Your task to perform on an android device: Show me recent news Image 0: 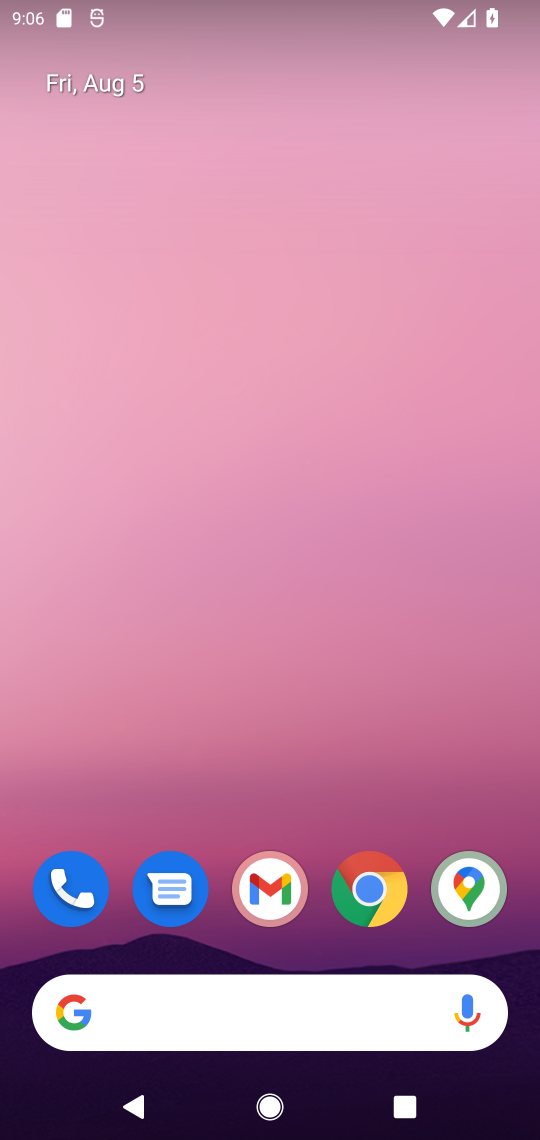
Step 0: drag from (297, 706) to (309, 25)
Your task to perform on an android device: Show me recent news Image 1: 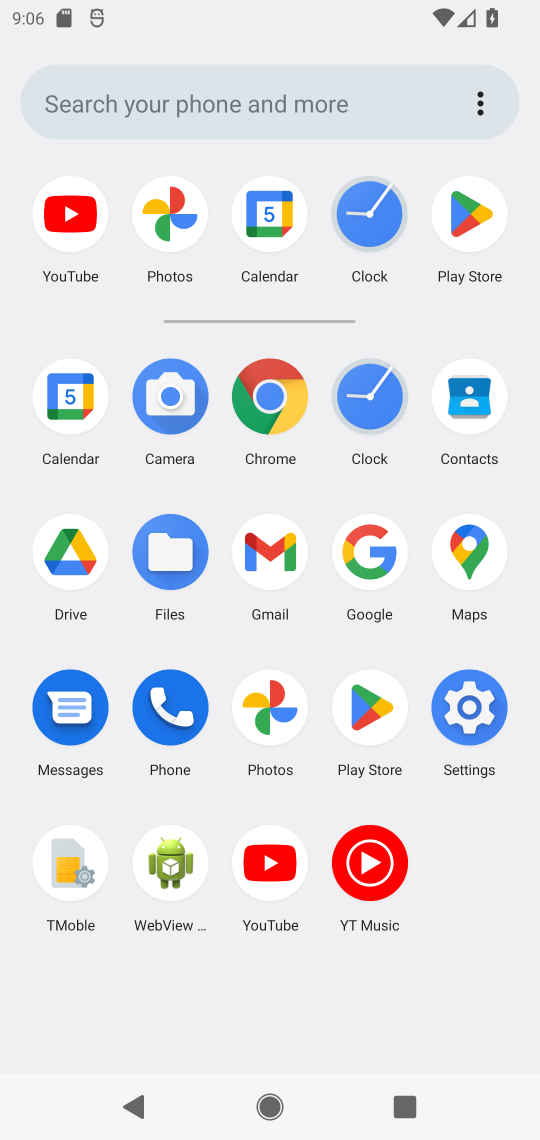
Step 1: click (288, 400)
Your task to perform on an android device: Show me recent news Image 2: 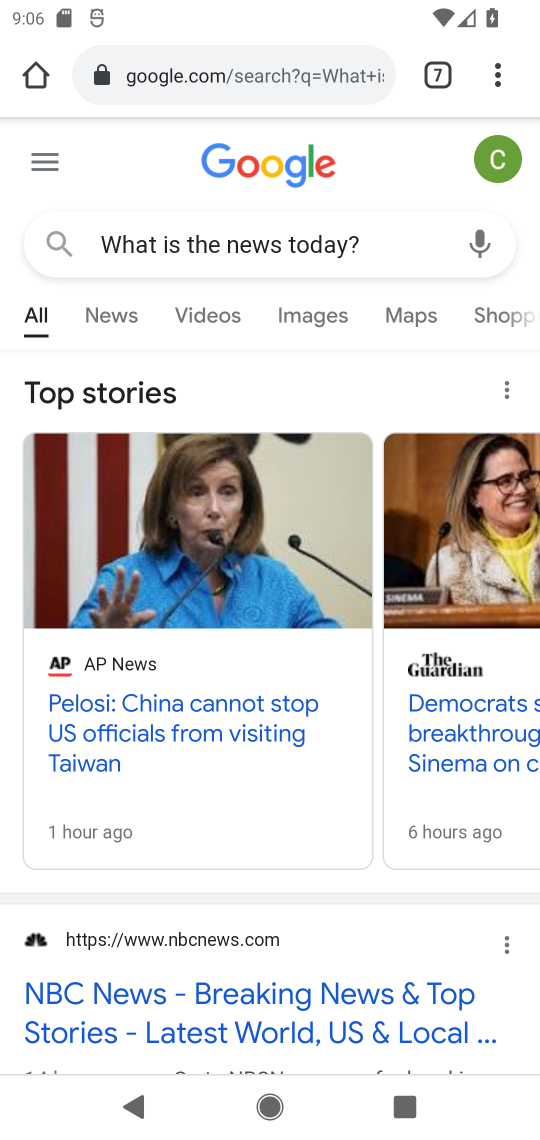
Step 2: click (484, 86)
Your task to perform on an android device: Show me recent news Image 3: 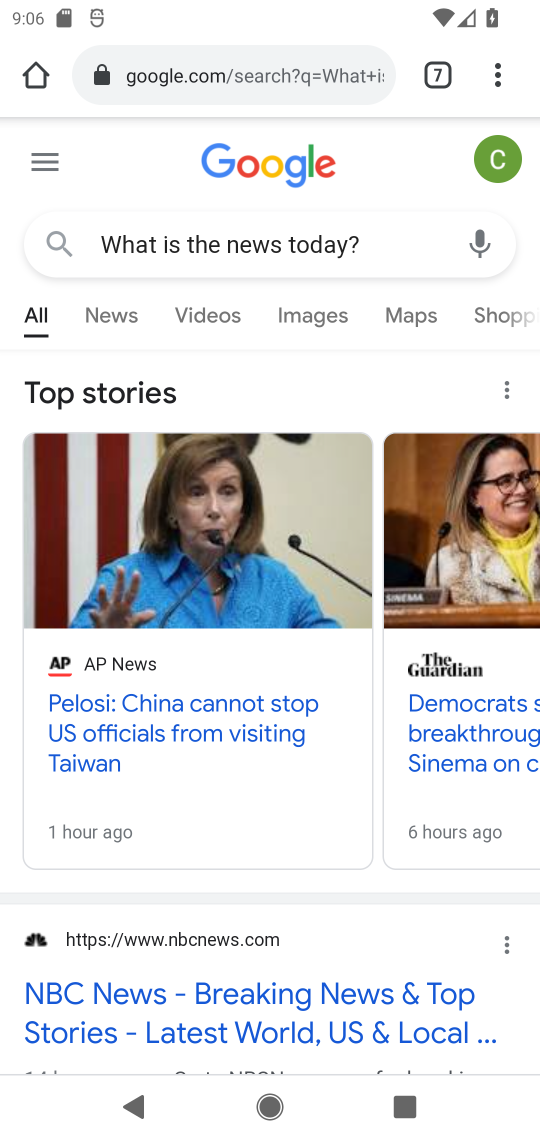
Step 3: click (496, 62)
Your task to perform on an android device: Show me recent news Image 4: 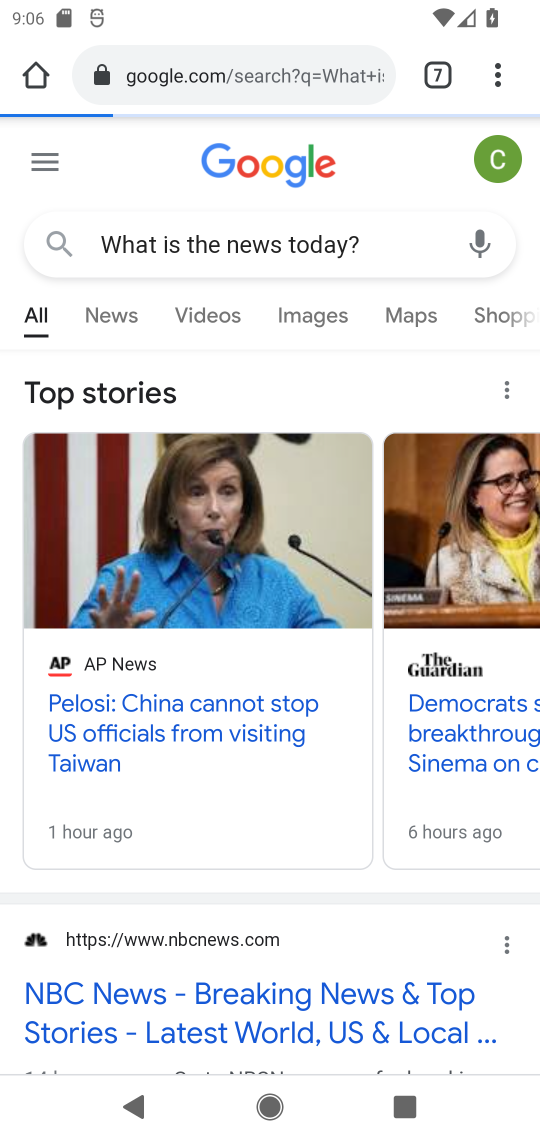
Step 4: click (493, 65)
Your task to perform on an android device: Show me recent news Image 5: 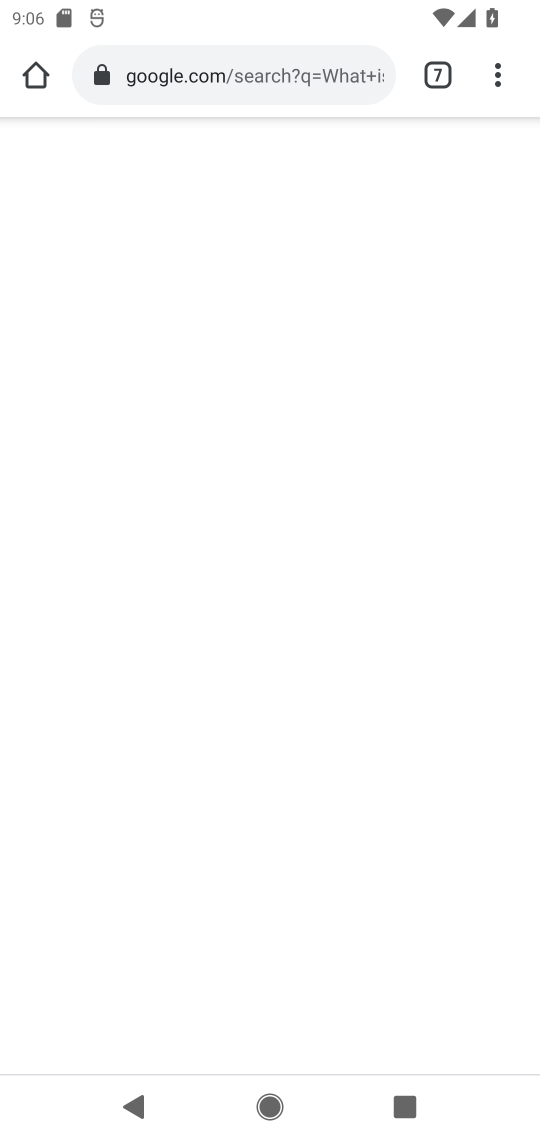
Step 5: click (484, 69)
Your task to perform on an android device: Show me recent news Image 6: 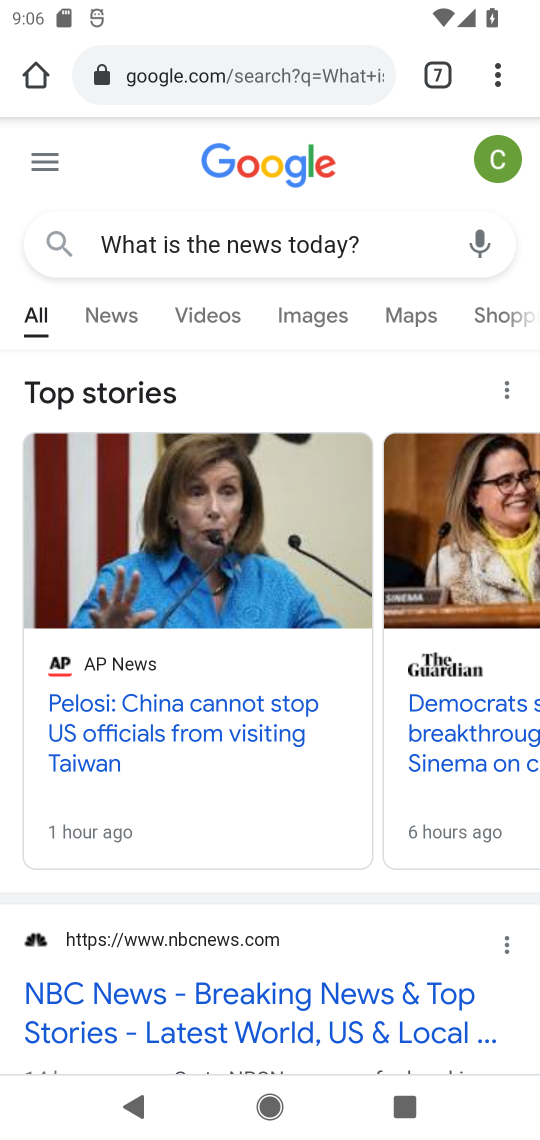
Step 6: click (481, 74)
Your task to perform on an android device: Show me recent news Image 7: 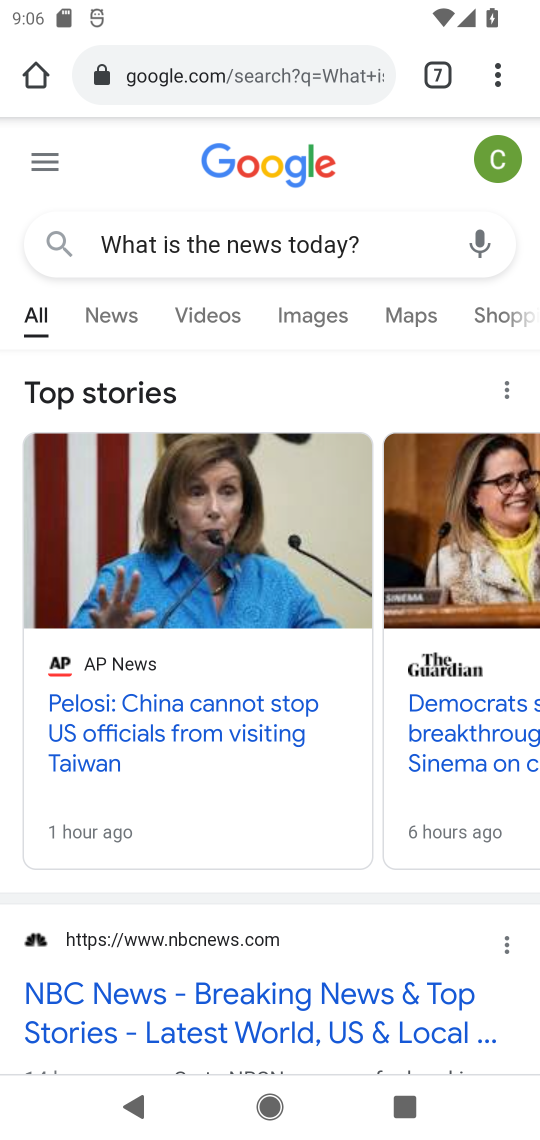
Step 7: click (480, 65)
Your task to perform on an android device: Show me recent news Image 8: 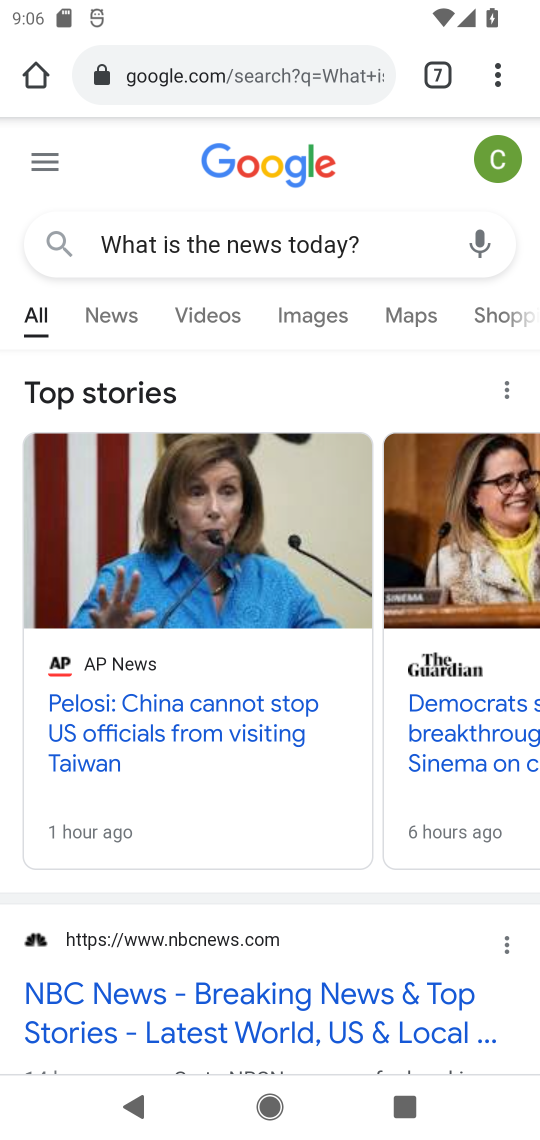
Step 8: click (487, 80)
Your task to perform on an android device: Show me recent news Image 9: 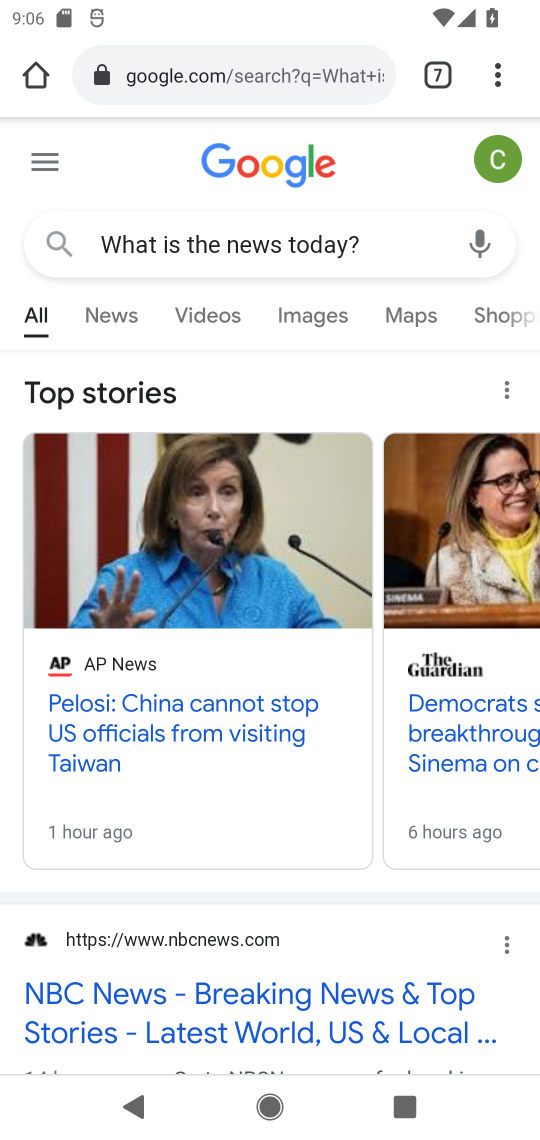
Step 9: click (487, 80)
Your task to perform on an android device: Show me recent news Image 10: 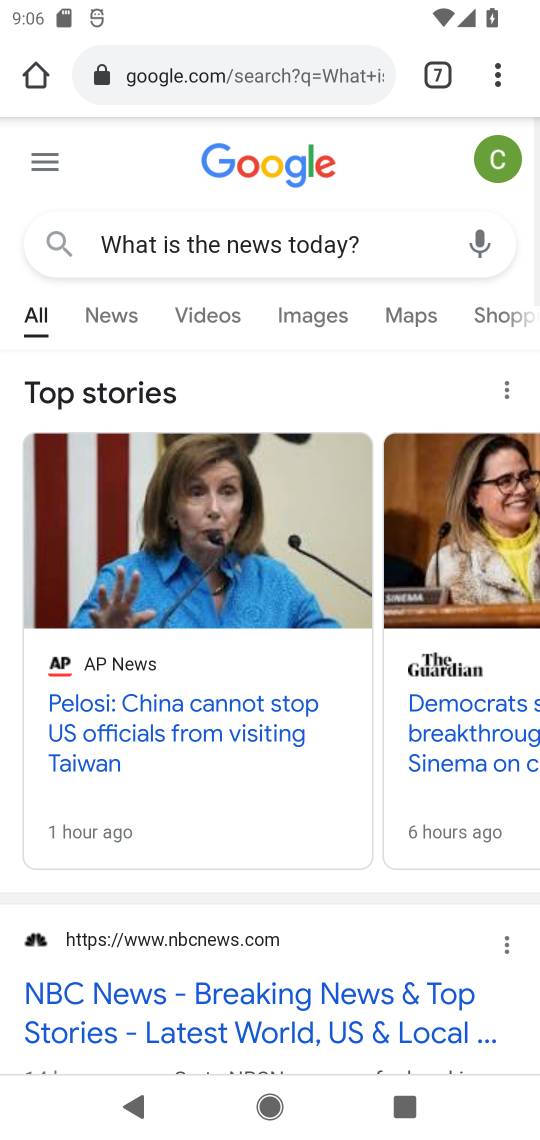
Step 10: click (487, 80)
Your task to perform on an android device: Show me recent news Image 11: 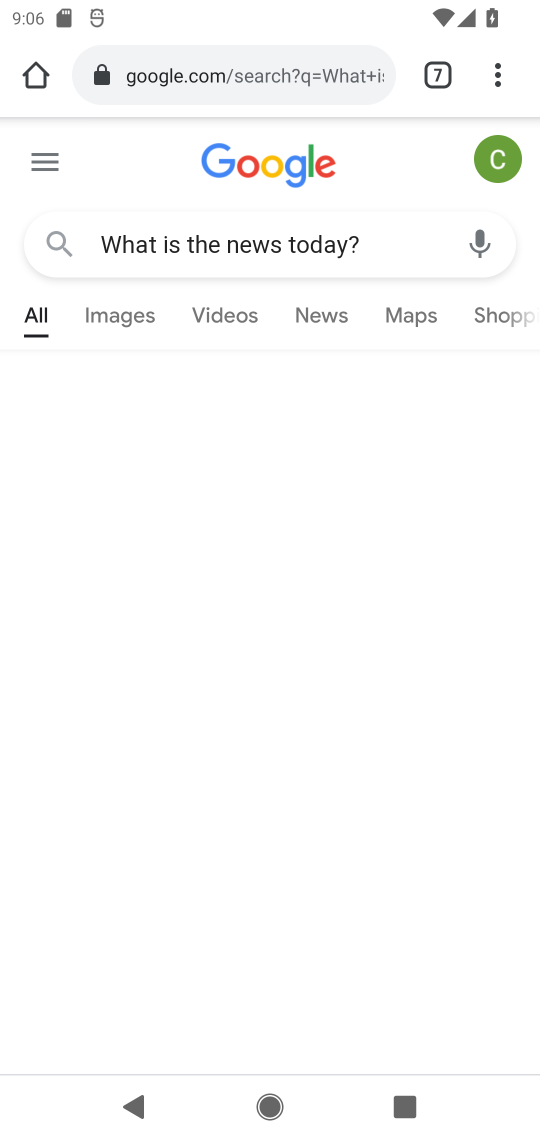
Step 11: click (446, 86)
Your task to perform on an android device: Show me recent news Image 12: 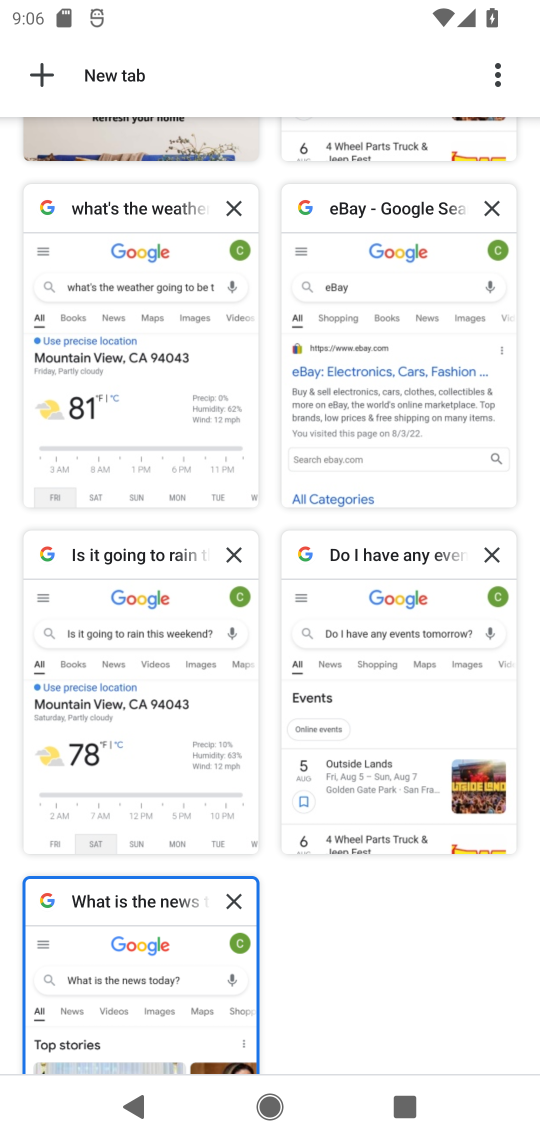
Step 12: drag from (262, 206) to (255, 875)
Your task to perform on an android device: Show me recent news Image 13: 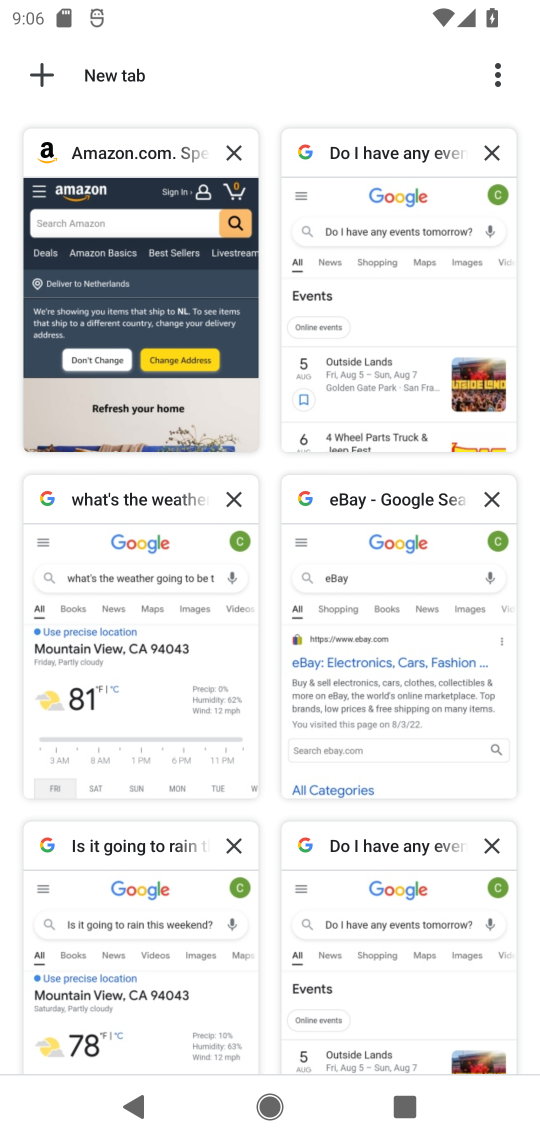
Step 13: click (46, 68)
Your task to perform on an android device: Show me recent news Image 14: 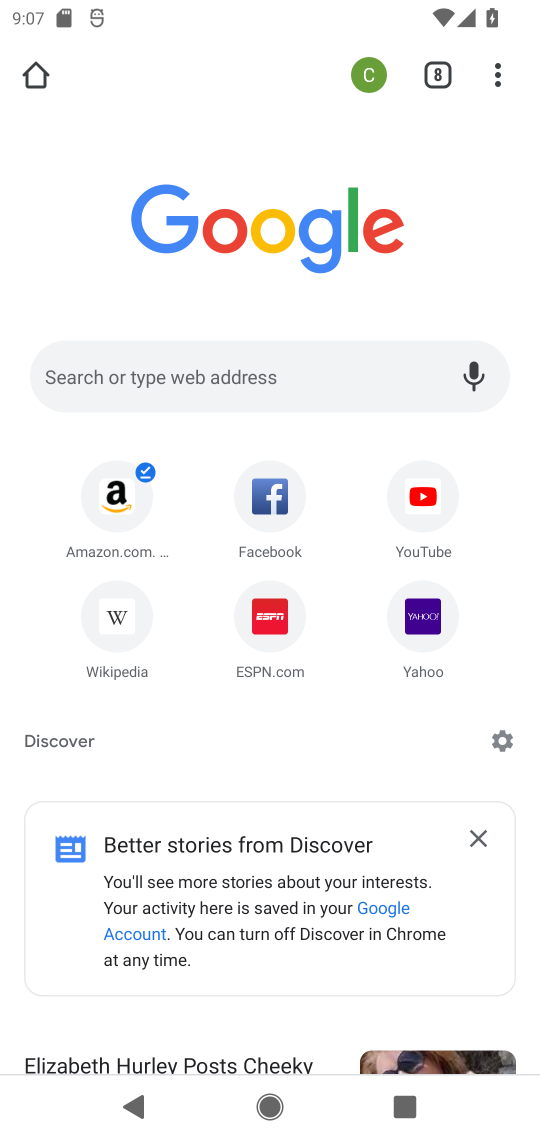
Step 14: click (236, 361)
Your task to perform on an android device: Show me recent news Image 15: 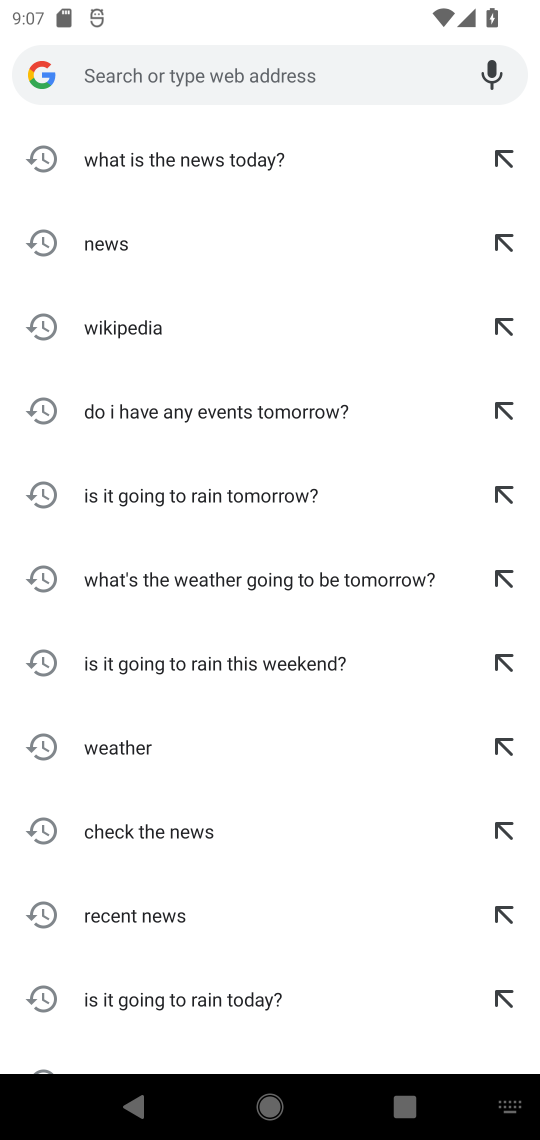
Step 15: type "Show me recent news "
Your task to perform on an android device: Show me recent news Image 16: 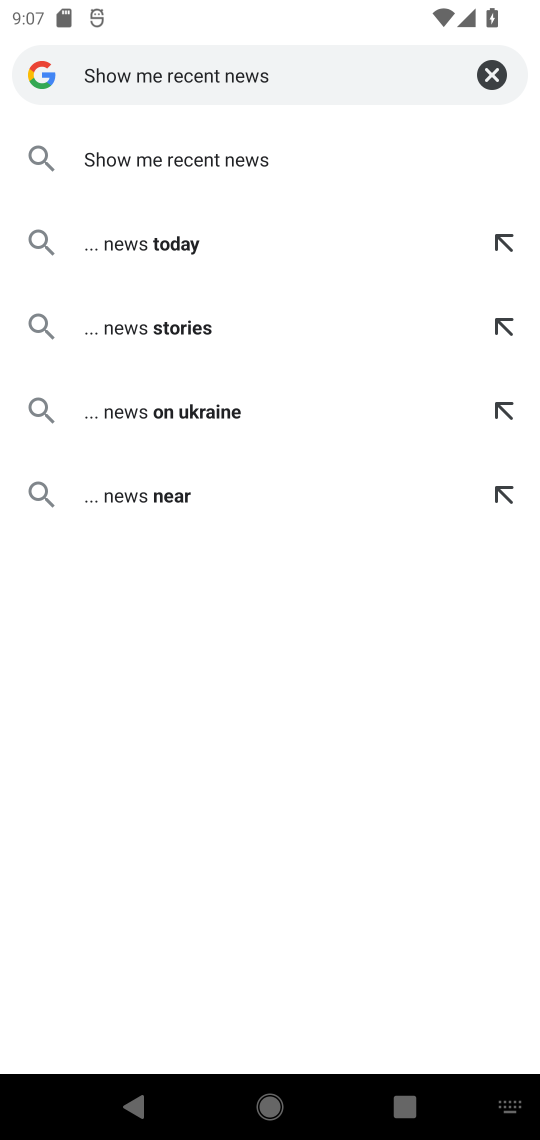
Step 16: click (218, 166)
Your task to perform on an android device: Show me recent news Image 17: 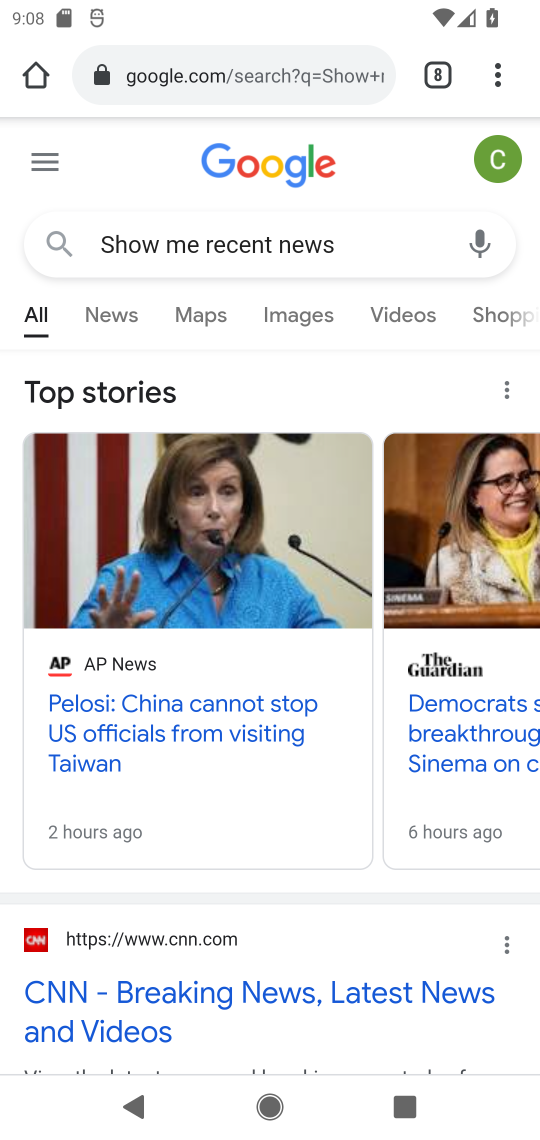
Step 17: task complete